Your task to perform on an android device: turn off location Image 0: 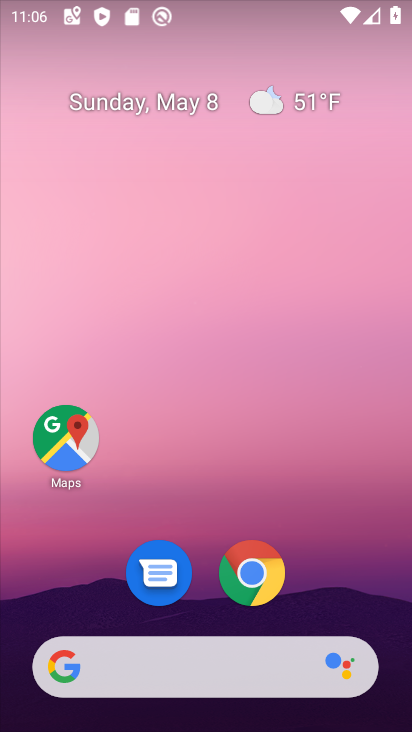
Step 0: click (286, 275)
Your task to perform on an android device: turn off location Image 1: 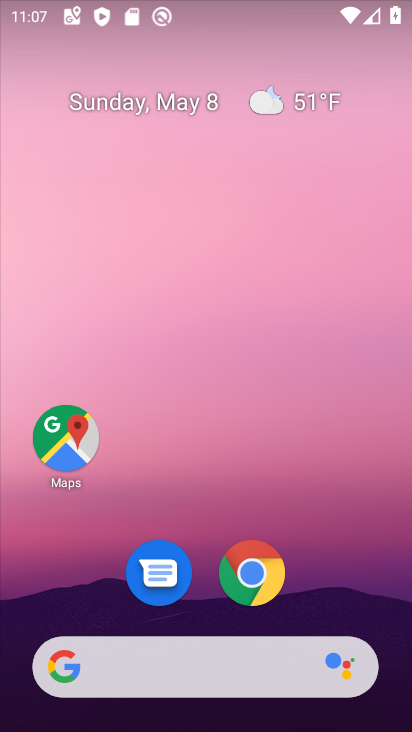
Step 1: drag from (148, 629) to (153, 311)
Your task to perform on an android device: turn off location Image 2: 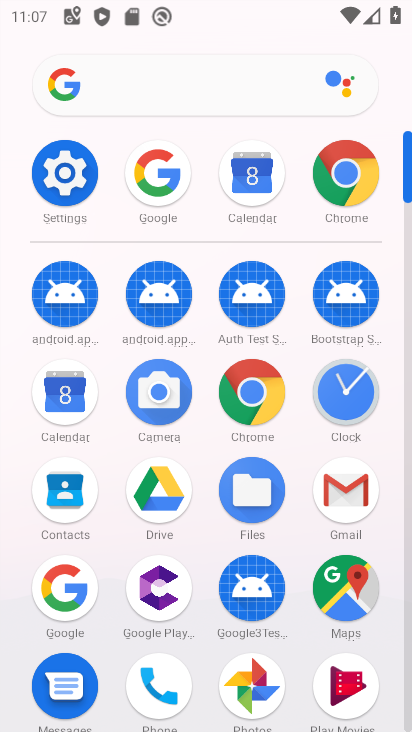
Step 2: click (61, 189)
Your task to perform on an android device: turn off location Image 3: 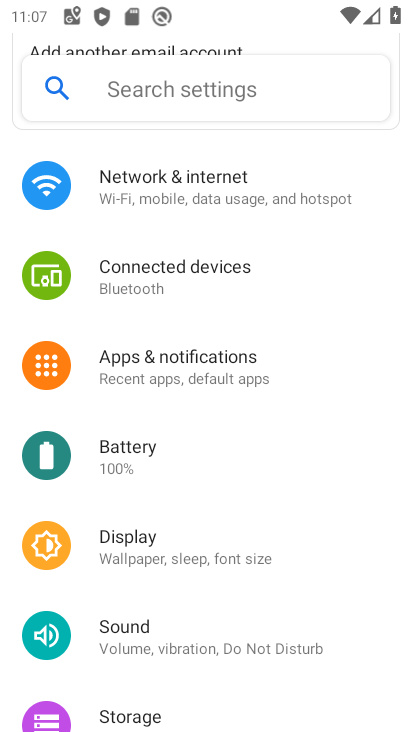
Step 3: drag from (177, 687) to (229, 382)
Your task to perform on an android device: turn off location Image 4: 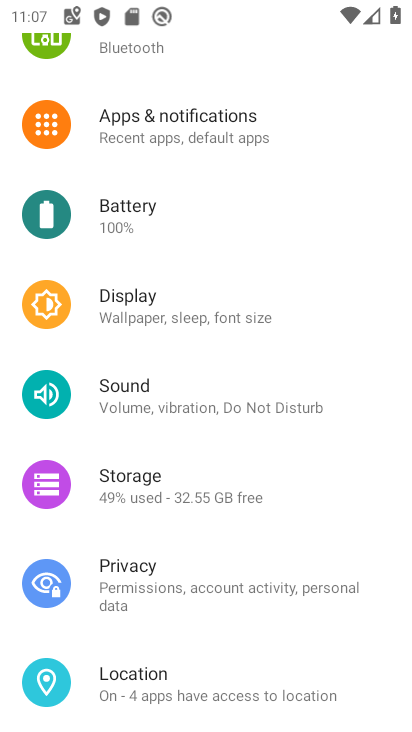
Step 4: click (194, 692)
Your task to perform on an android device: turn off location Image 5: 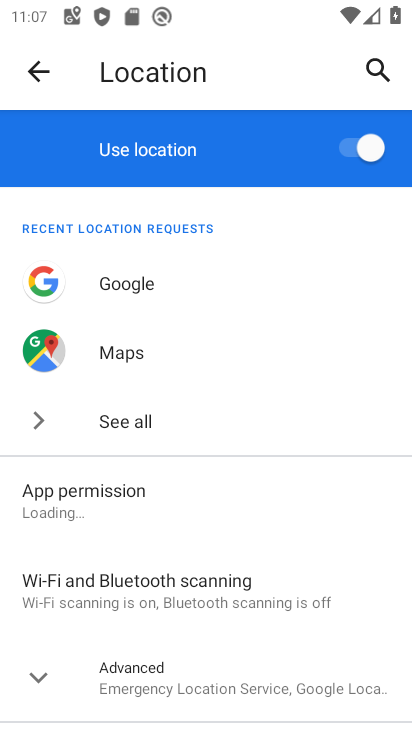
Step 5: click (352, 147)
Your task to perform on an android device: turn off location Image 6: 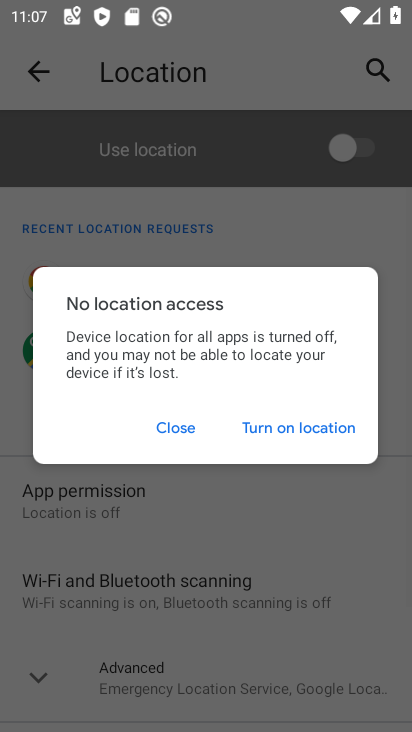
Step 6: task complete